Your task to perform on an android device: Clear the cart on target.com. Search for "usb-c" on target.com, select the first entry, and add it to the cart. Image 0: 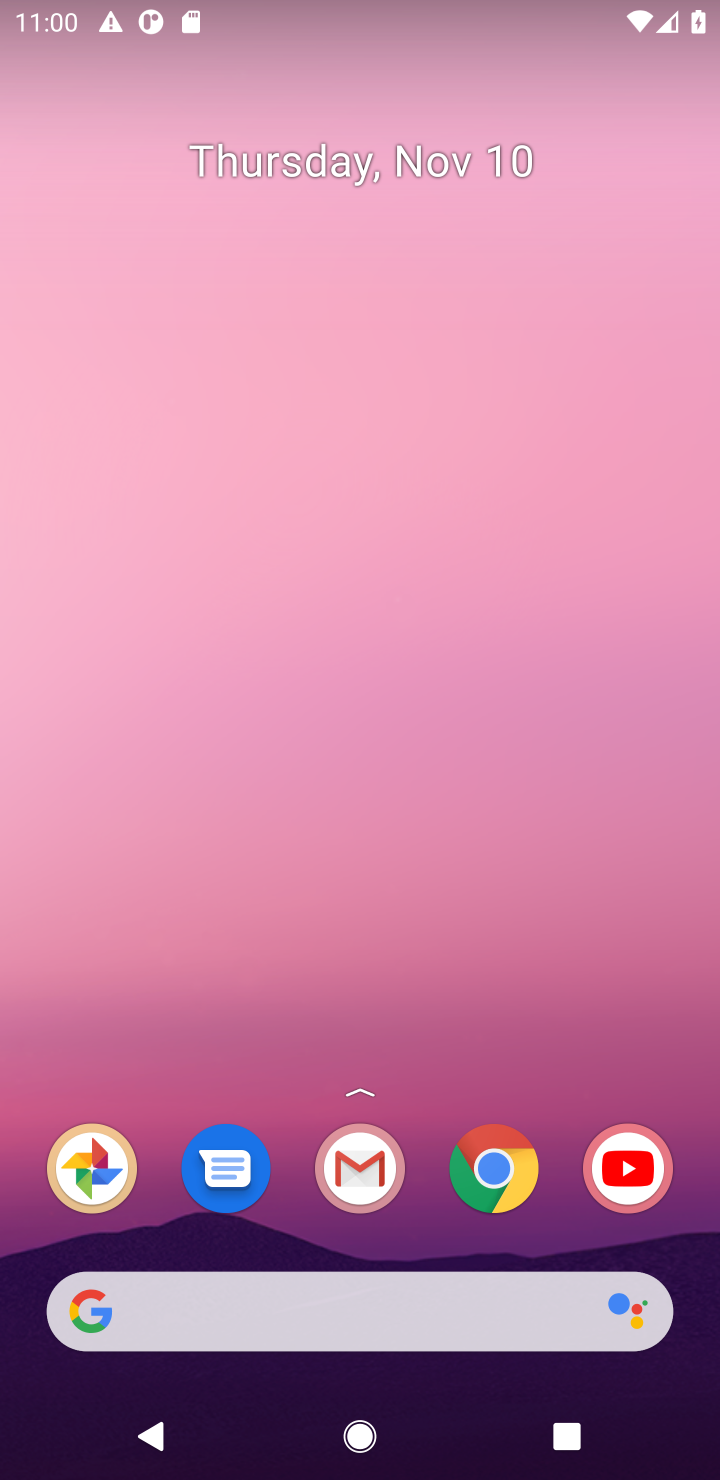
Step 0: click (516, 1170)
Your task to perform on an android device: Clear the cart on target.com. Search for "usb-c" on target.com, select the first entry, and add it to the cart. Image 1: 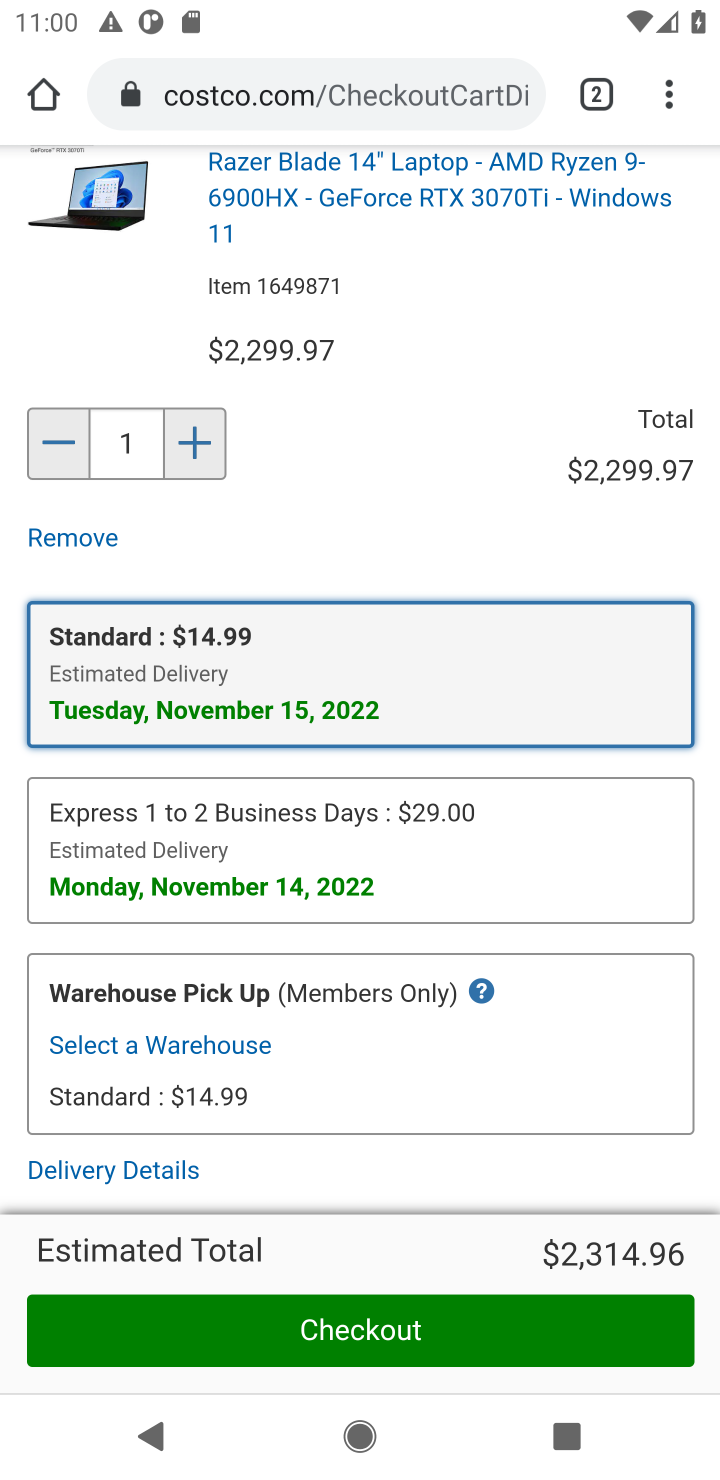
Step 1: click (297, 111)
Your task to perform on an android device: Clear the cart on target.com. Search for "usb-c" on target.com, select the first entry, and add it to the cart. Image 2: 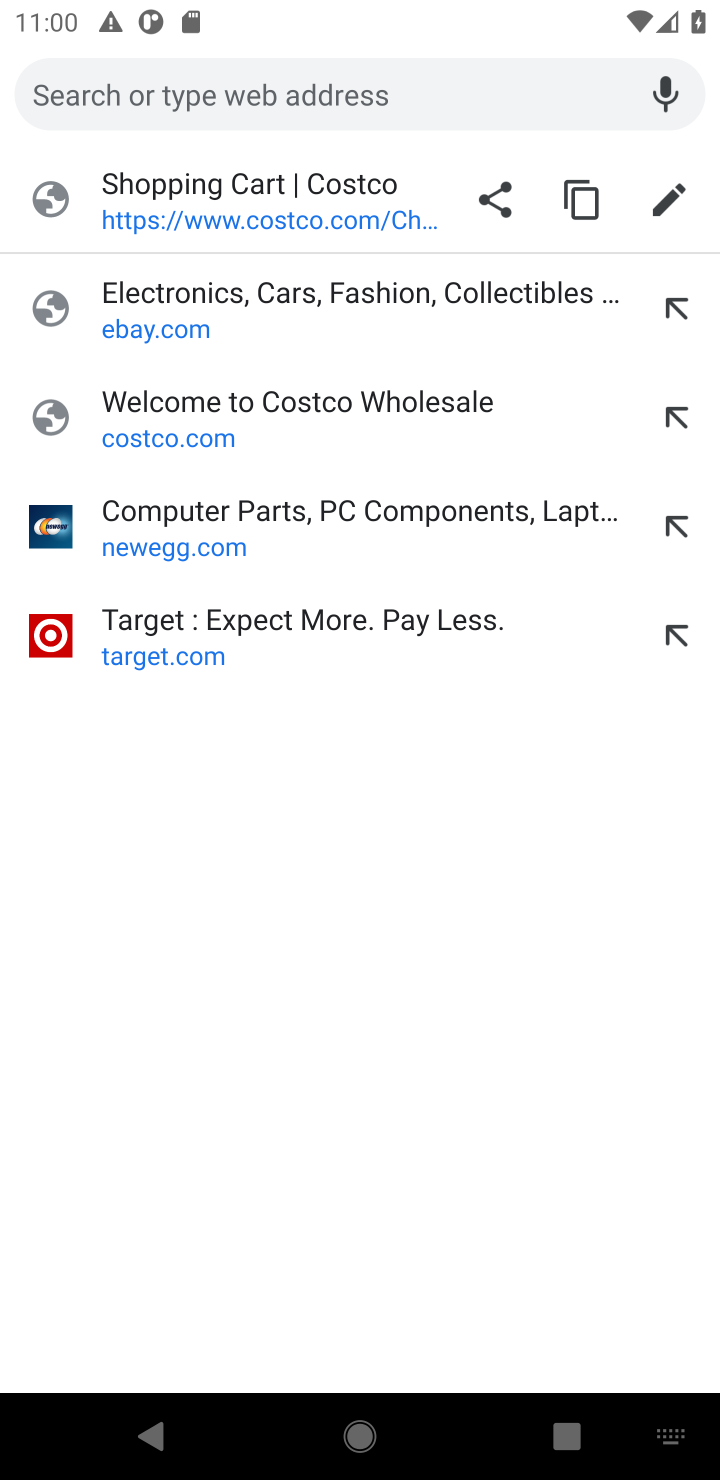
Step 2: click (136, 630)
Your task to perform on an android device: Clear the cart on target.com. Search for "usb-c" on target.com, select the first entry, and add it to the cart. Image 3: 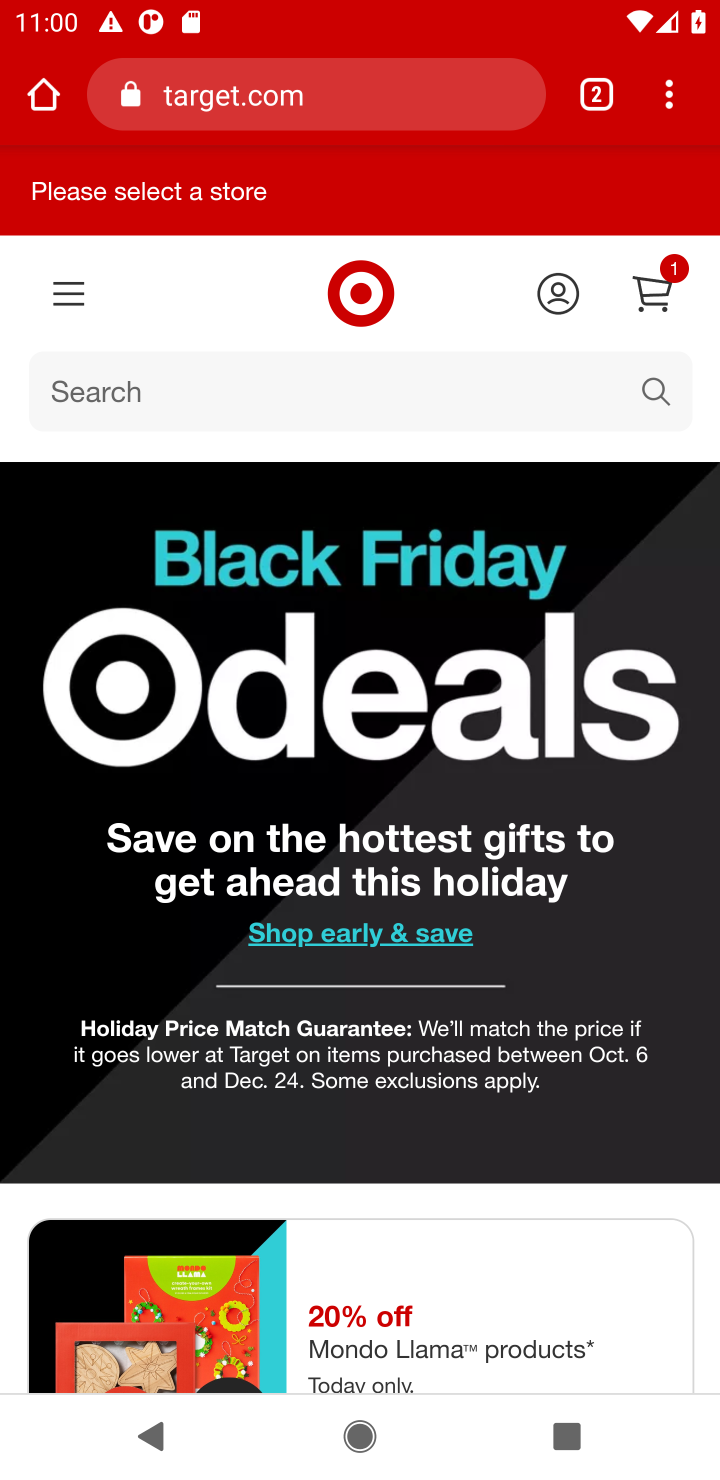
Step 3: click (655, 287)
Your task to perform on an android device: Clear the cart on target.com. Search for "usb-c" on target.com, select the first entry, and add it to the cart. Image 4: 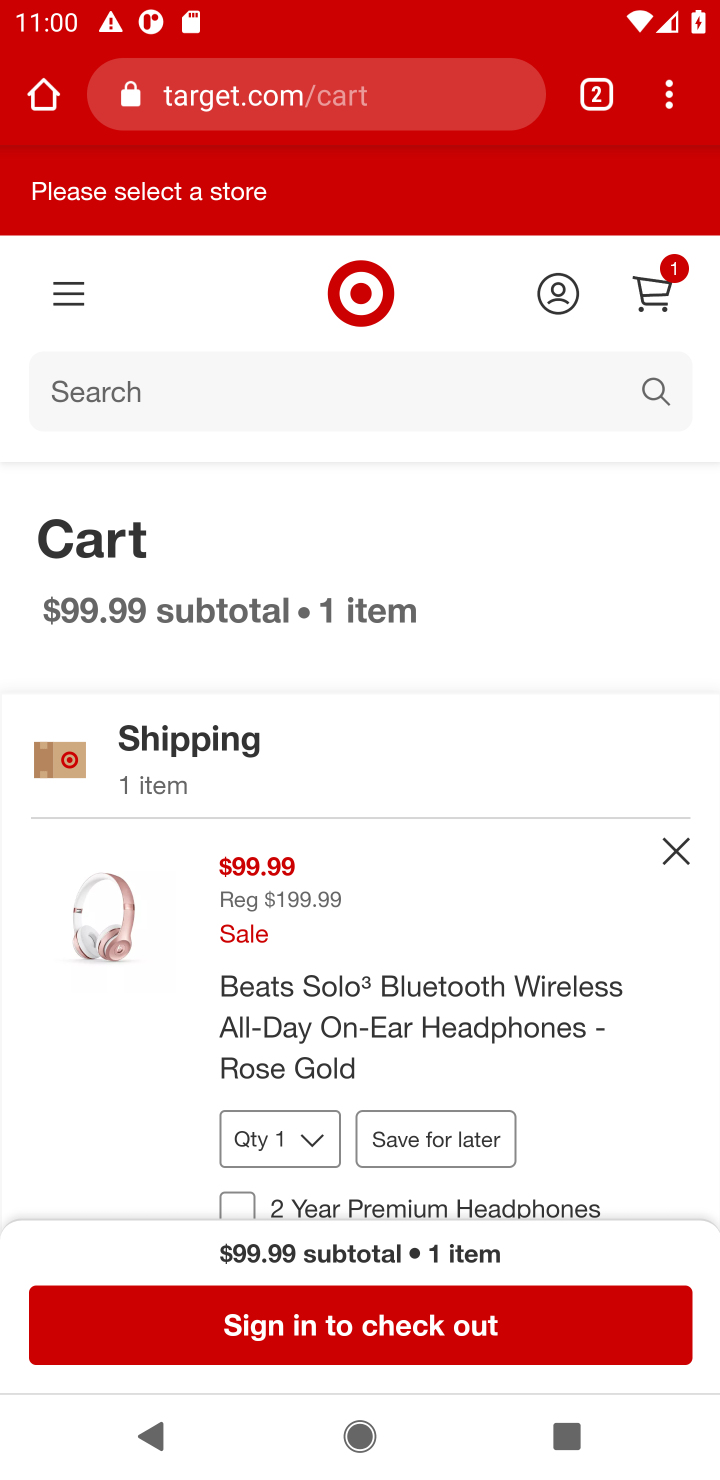
Step 4: click (668, 859)
Your task to perform on an android device: Clear the cart on target.com. Search for "usb-c" on target.com, select the first entry, and add it to the cart. Image 5: 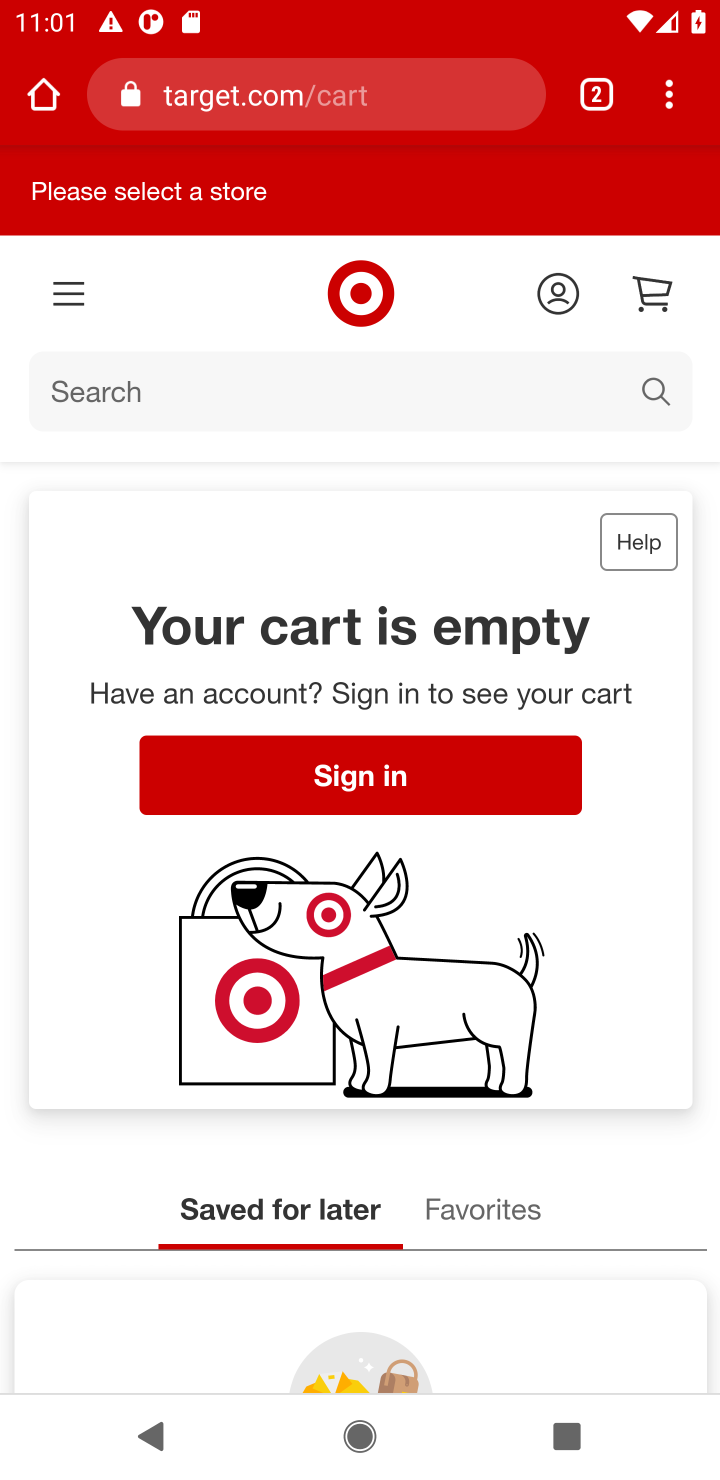
Step 5: click (650, 395)
Your task to perform on an android device: Clear the cart on target.com. Search for "usb-c" on target.com, select the first entry, and add it to the cart. Image 6: 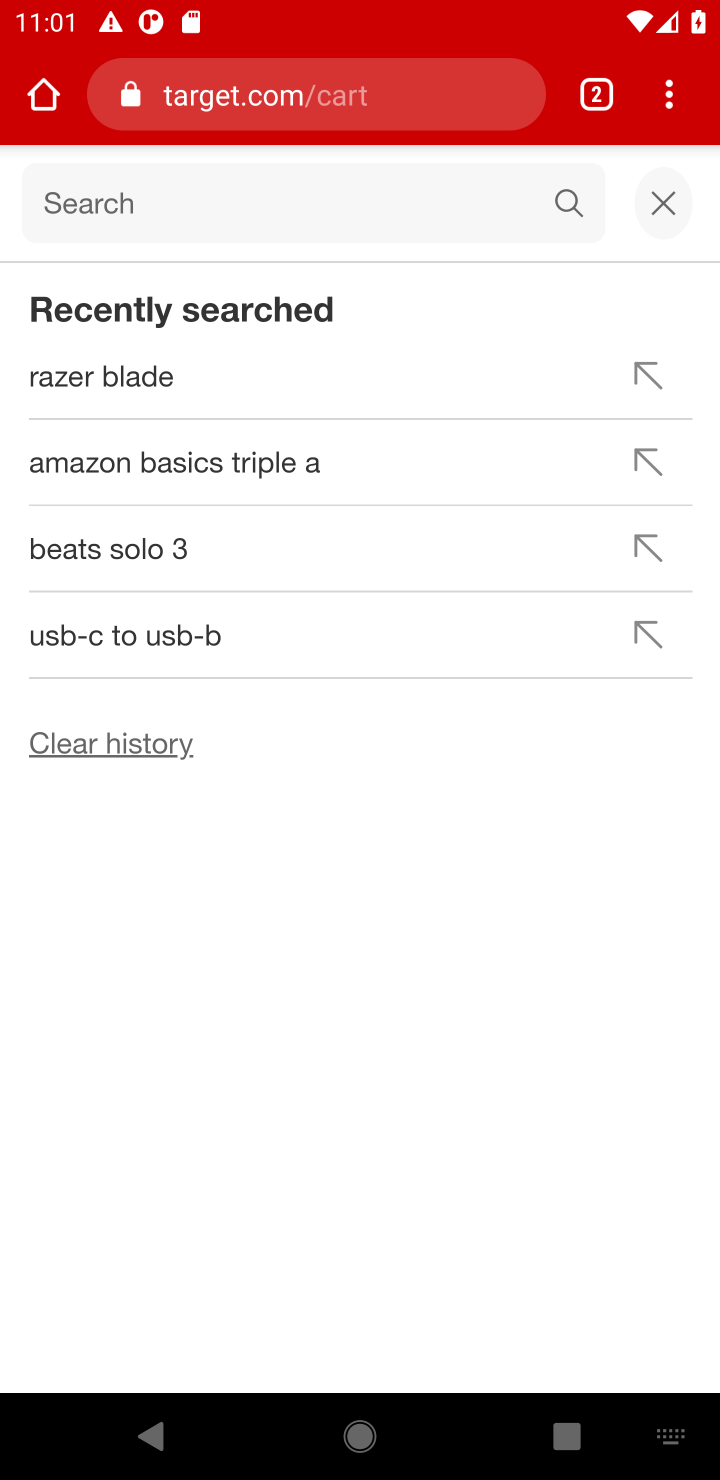
Step 6: type "usb-c"
Your task to perform on an android device: Clear the cart on target.com. Search for "usb-c" on target.com, select the first entry, and add it to the cart. Image 7: 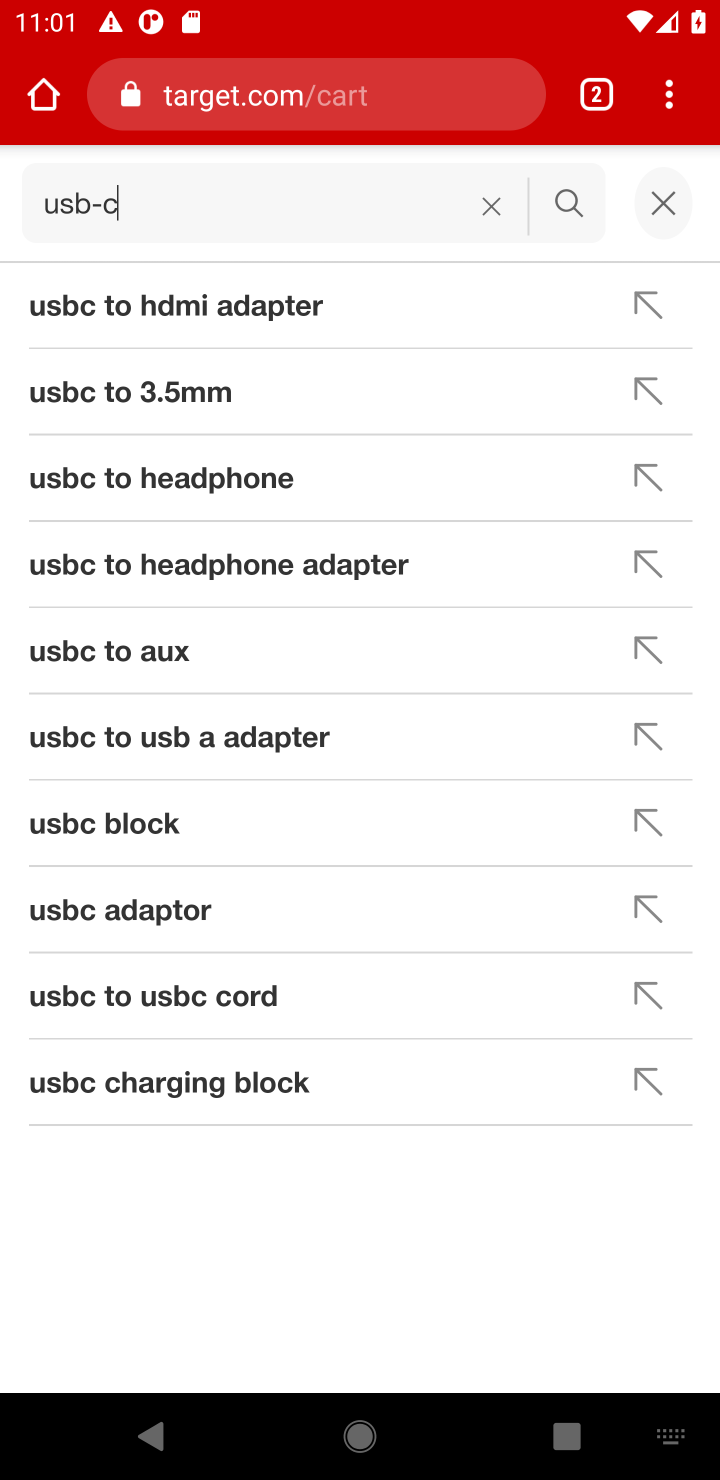
Step 7: click (571, 206)
Your task to perform on an android device: Clear the cart on target.com. Search for "usb-c" on target.com, select the first entry, and add it to the cart. Image 8: 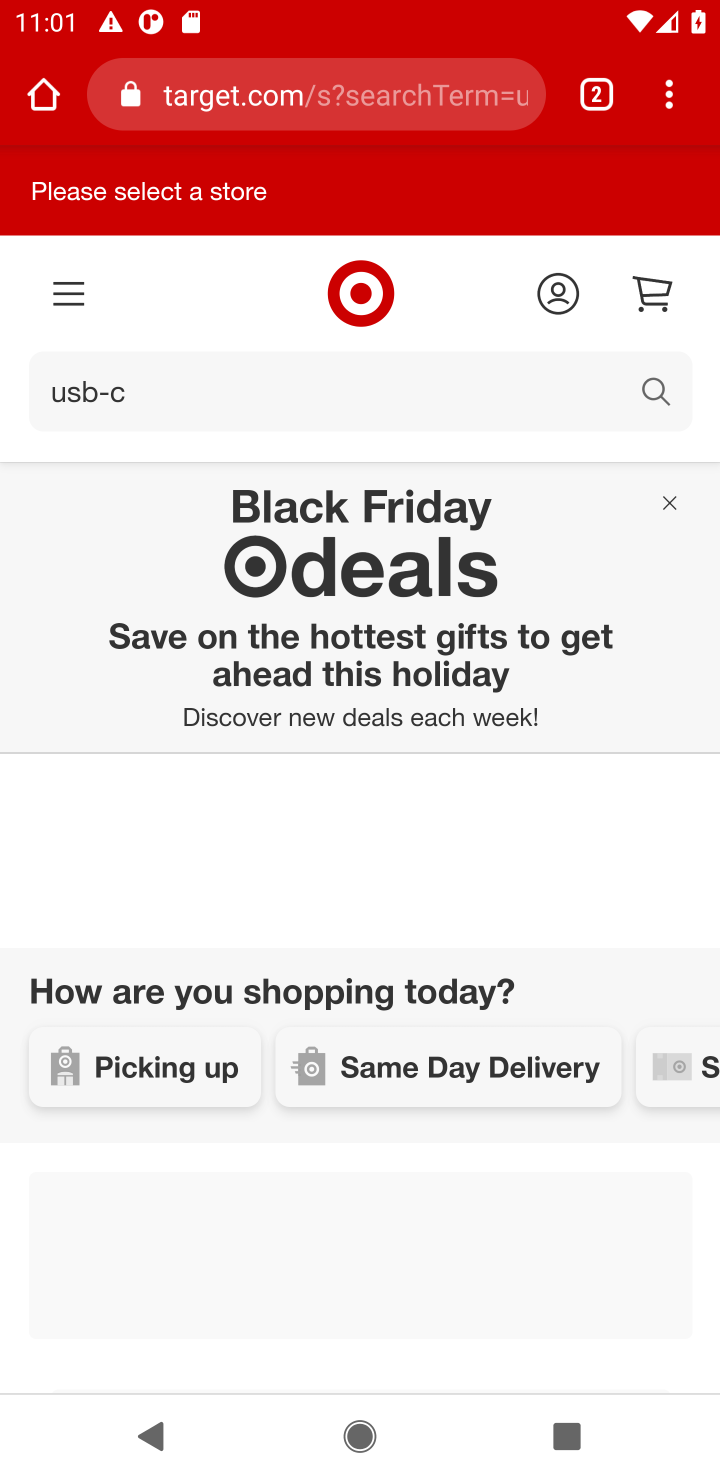
Step 8: drag from (318, 965) to (293, 512)
Your task to perform on an android device: Clear the cart on target.com. Search for "usb-c" on target.com, select the first entry, and add it to the cart. Image 9: 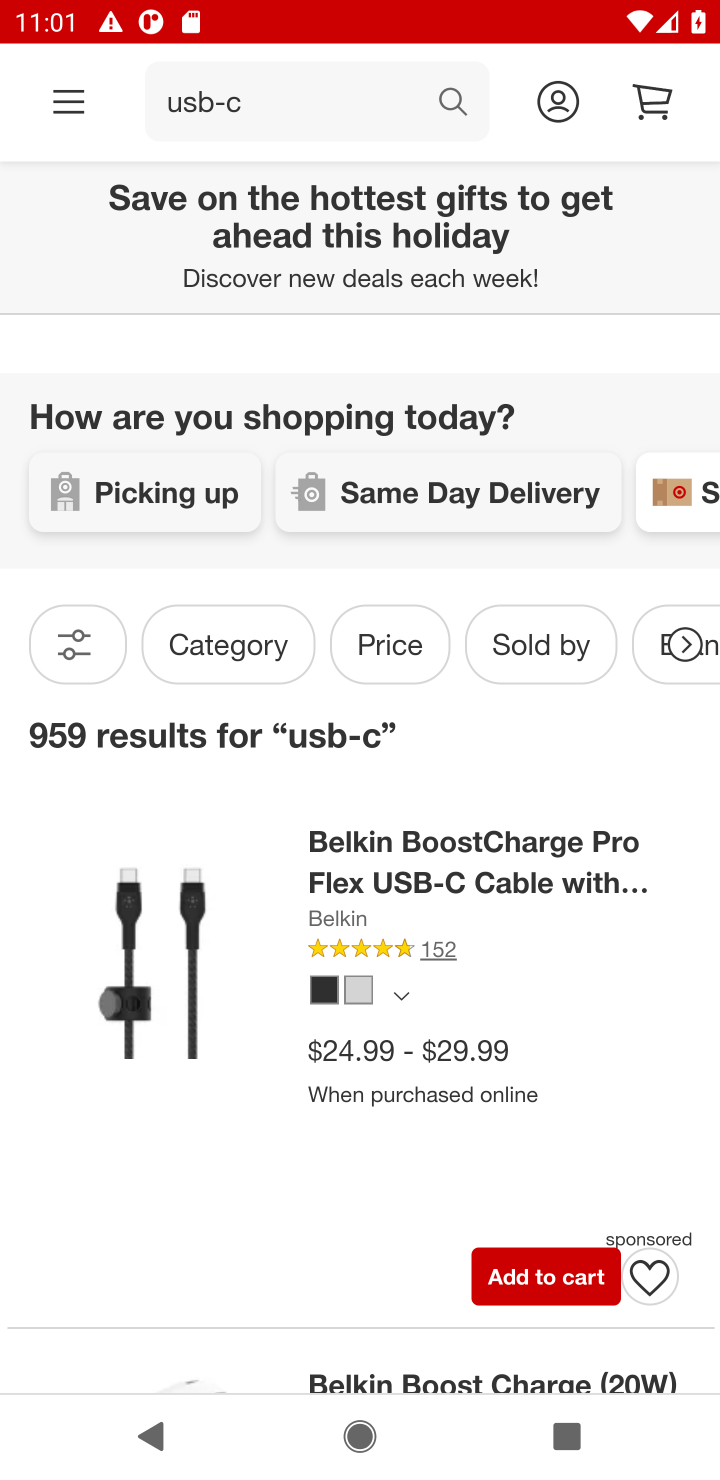
Step 9: click (509, 1296)
Your task to perform on an android device: Clear the cart on target.com. Search for "usb-c" on target.com, select the first entry, and add it to the cart. Image 10: 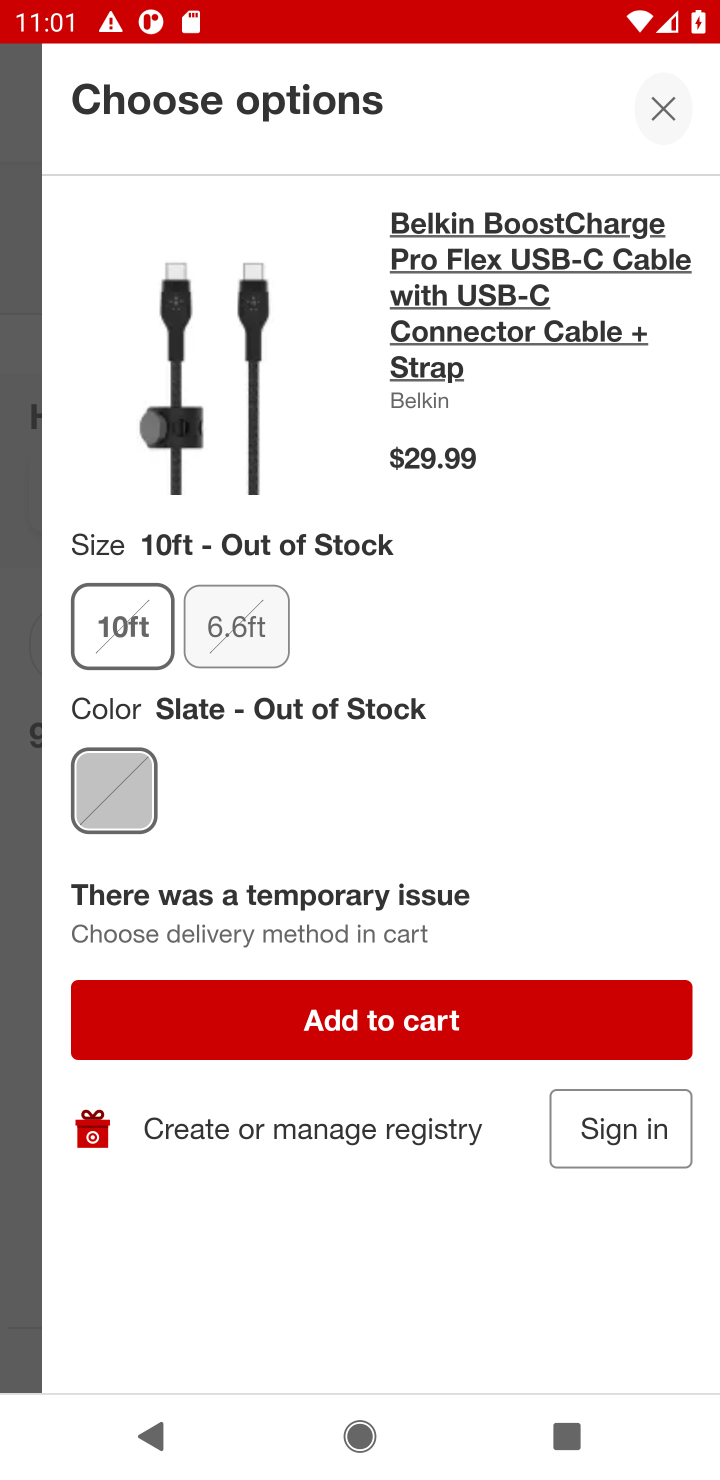
Step 10: click (362, 1029)
Your task to perform on an android device: Clear the cart on target.com. Search for "usb-c" on target.com, select the first entry, and add it to the cart. Image 11: 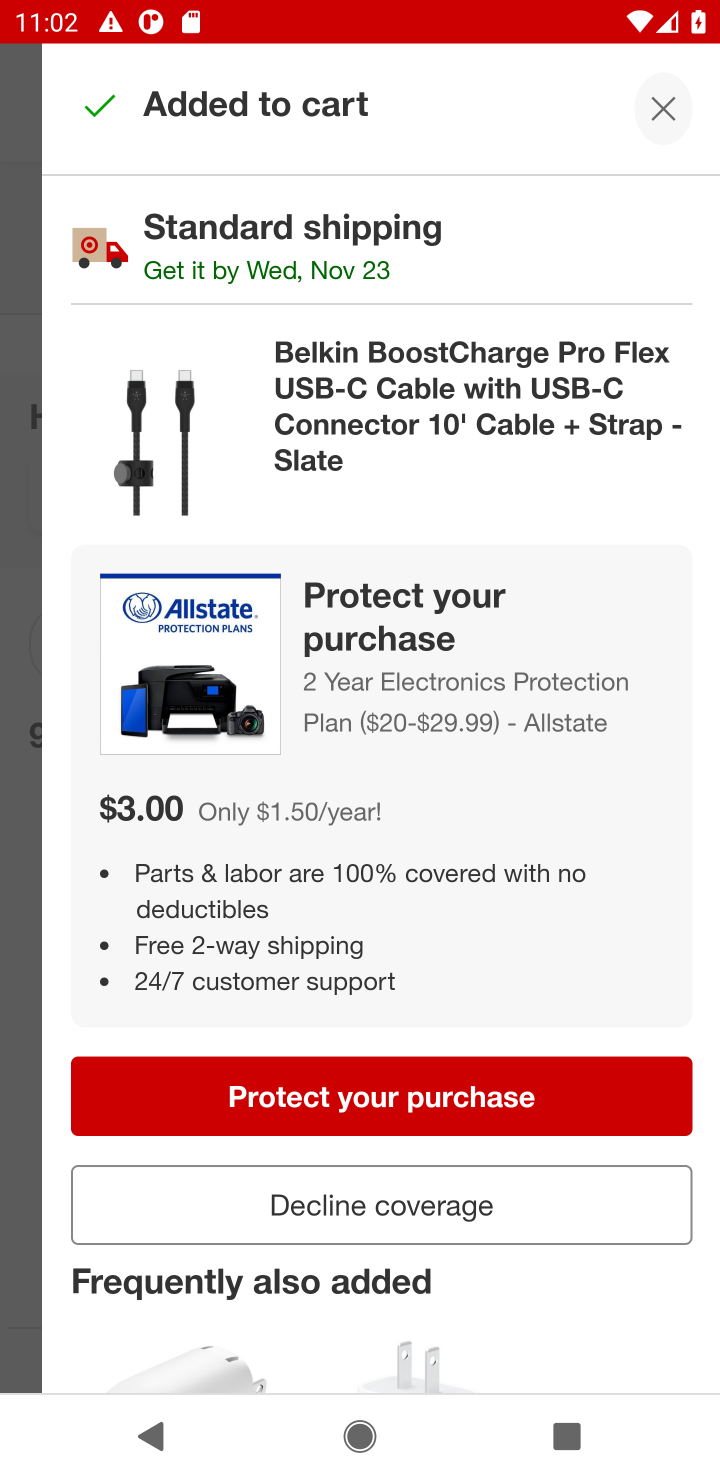
Step 11: task complete